Your task to perform on an android device: turn off sleep mode Image 0: 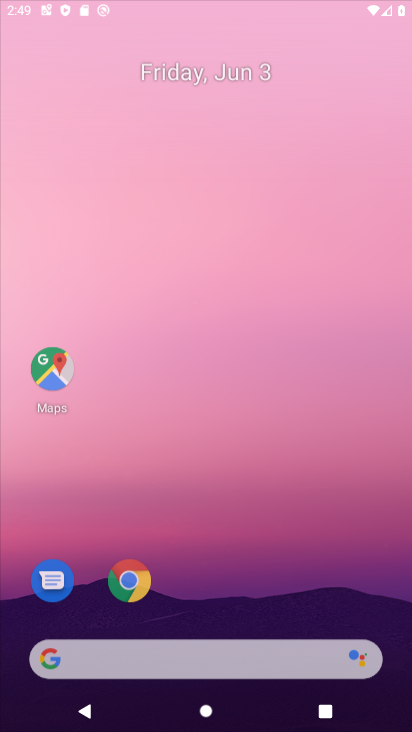
Step 0: drag from (277, 440) to (275, 143)
Your task to perform on an android device: turn off sleep mode Image 1: 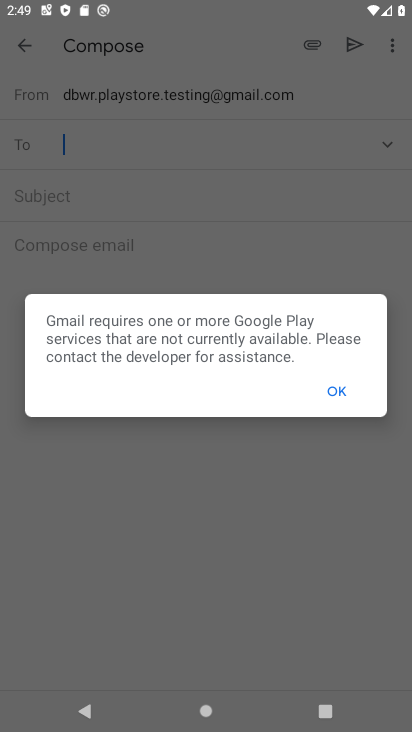
Step 1: press home button
Your task to perform on an android device: turn off sleep mode Image 2: 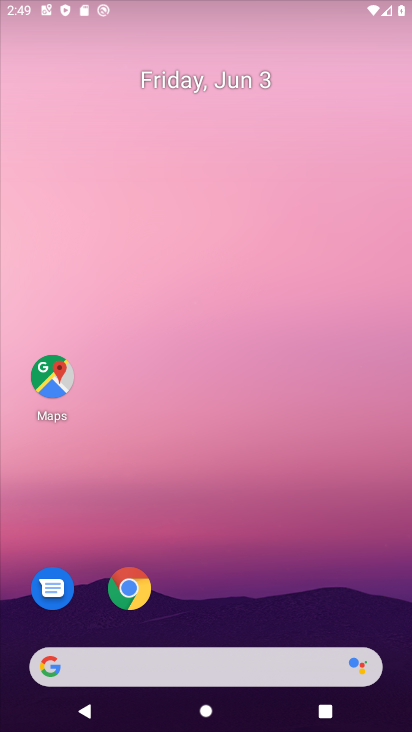
Step 2: drag from (220, 506) to (228, 71)
Your task to perform on an android device: turn off sleep mode Image 3: 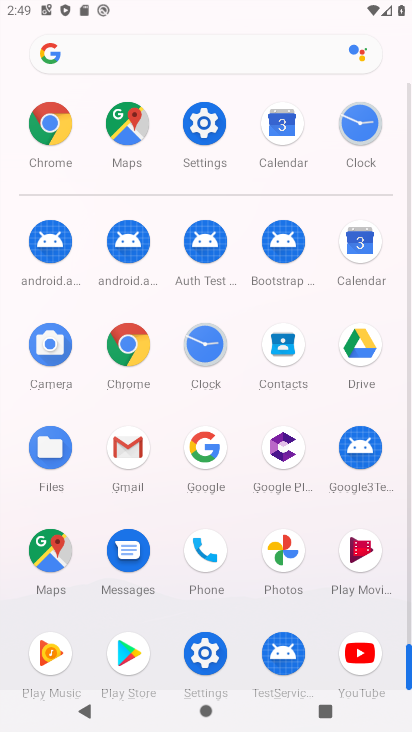
Step 3: click (201, 641)
Your task to perform on an android device: turn off sleep mode Image 4: 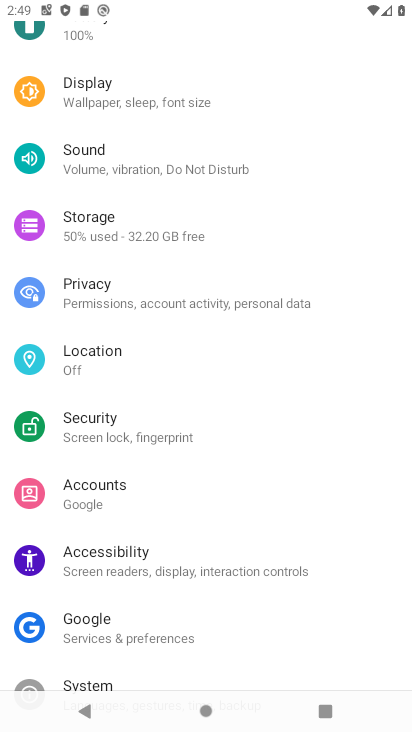
Step 4: task complete